Your task to perform on an android device: turn off priority inbox in the gmail app Image 0: 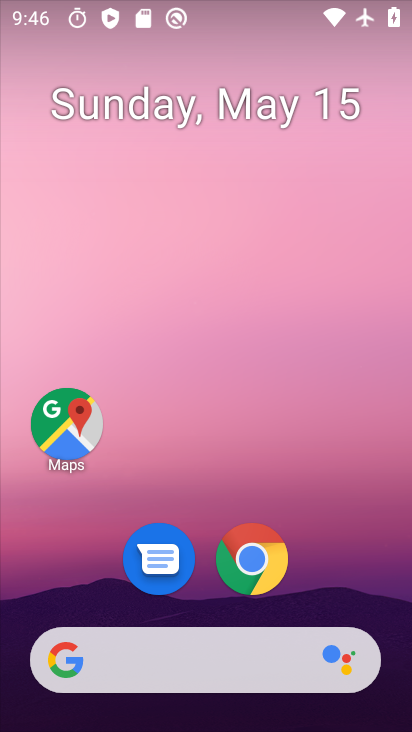
Step 0: drag from (289, 613) to (169, 0)
Your task to perform on an android device: turn off priority inbox in the gmail app Image 1: 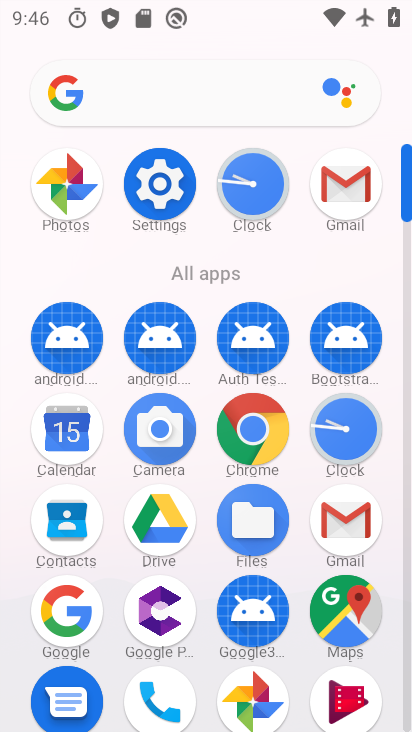
Step 1: click (366, 521)
Your task to perform on an android device: turn off priority inbox in the gmail app Image 2: 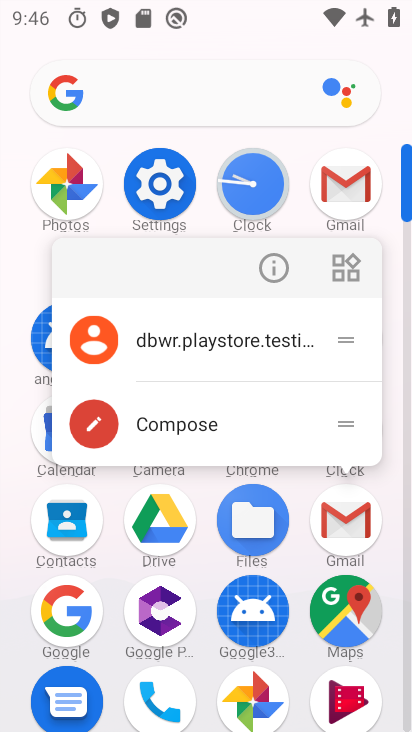
Step 2: click (337, 517)
Your task to perform on an android device: turn off priority inbox in the gmail app Image 3: 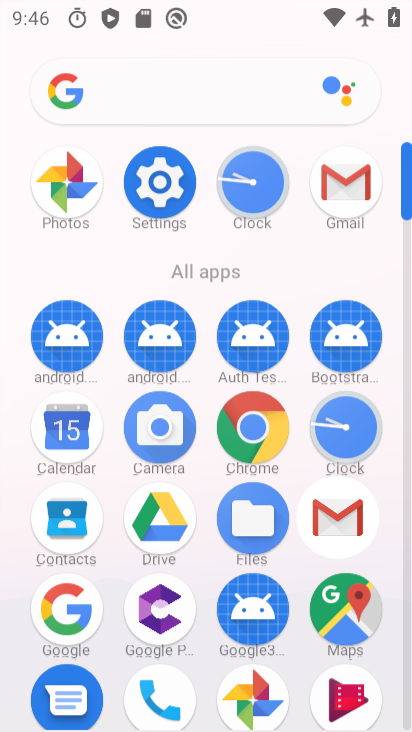
Step 3: click (342, 509)
Your task to perform on an android device: turn off priority inbox in the gmail app Image 4: 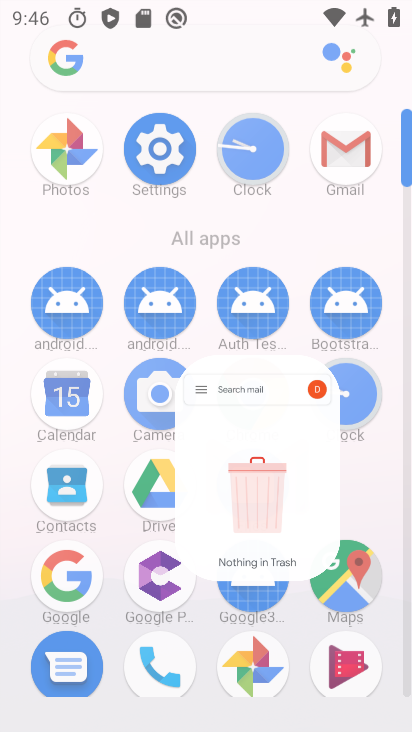
Step 4: click (344, 508)
Your task to perform on an android device: turn off priority inbox in the gmail app Image 5: 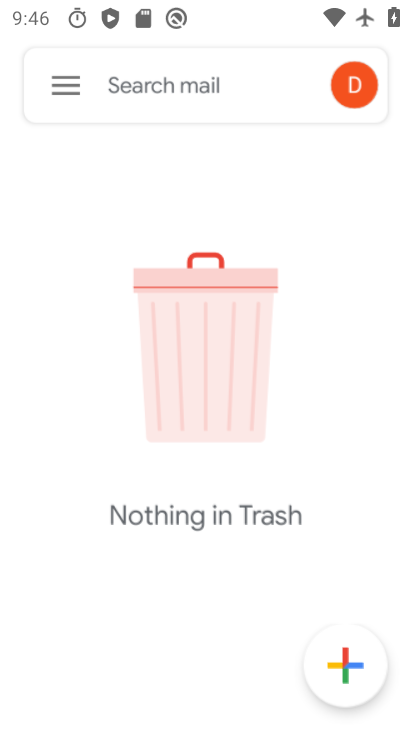
Step 5: click (345, 510)
Your task to perform on an android device: turn off priority inbox in the gmail app Image 6: 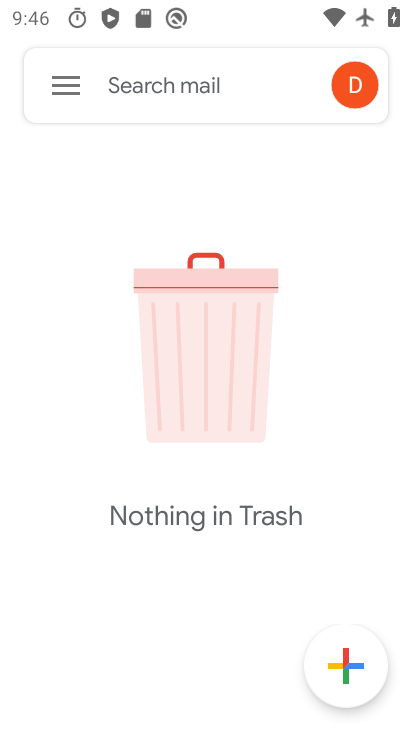
Step 6: click (70, 77)
Your task to perform on an android device: turn off priority inbox in the gmail app Image 7: 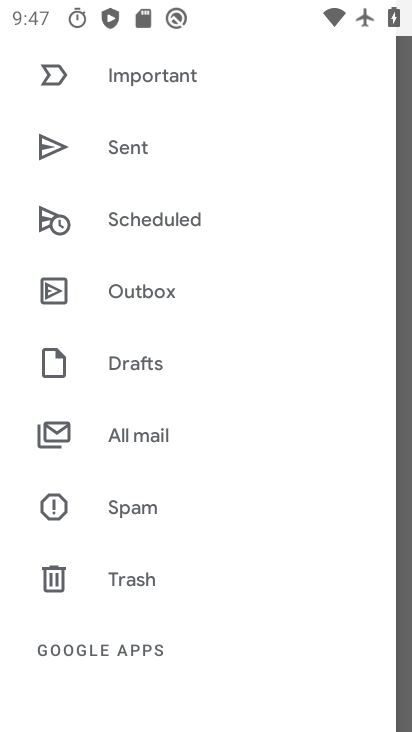
Step 7: drag from (174, 473) to (174, 125)
Your task to perform on an android device: turn off priority inbox in the gmail app Image 8: 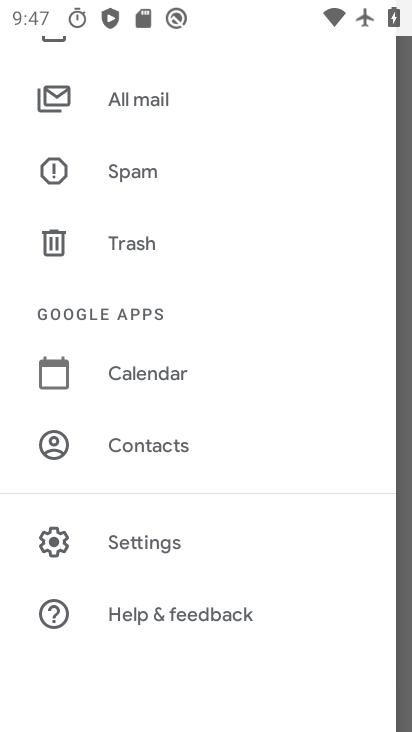
Step 8: click (151, 539)
Your task to perform on an android device: turn off priority inbox in the gmail app Image 9: 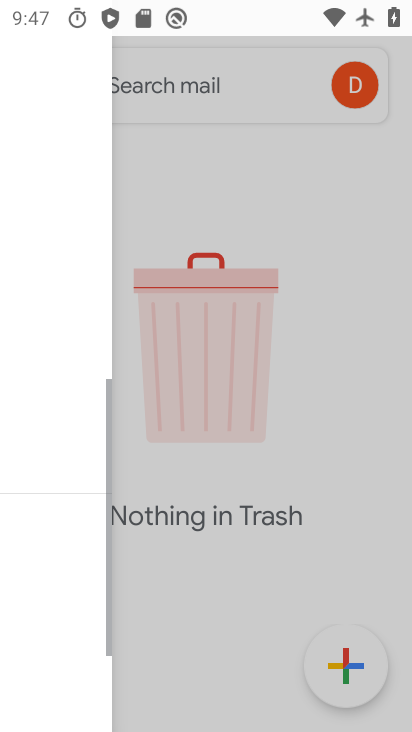
Step 9: click (151, 539)
Your task to perform on an android device: turn off priority inbox in the gmail app Image 10: 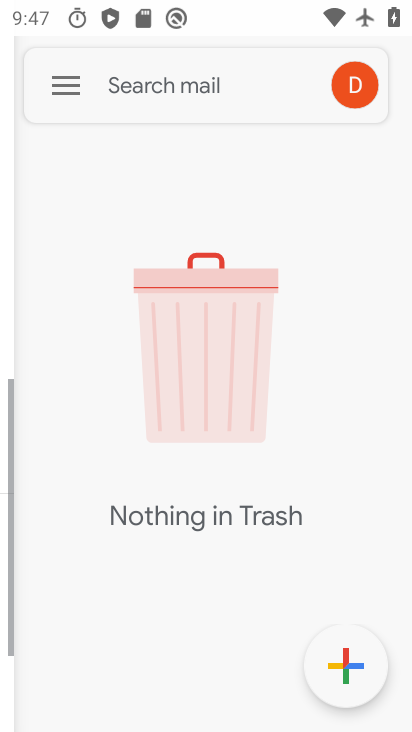
Step 10: click (151, 539)
Your task to perform on an android device: turn off priority inbox in the gmail app Image 11: 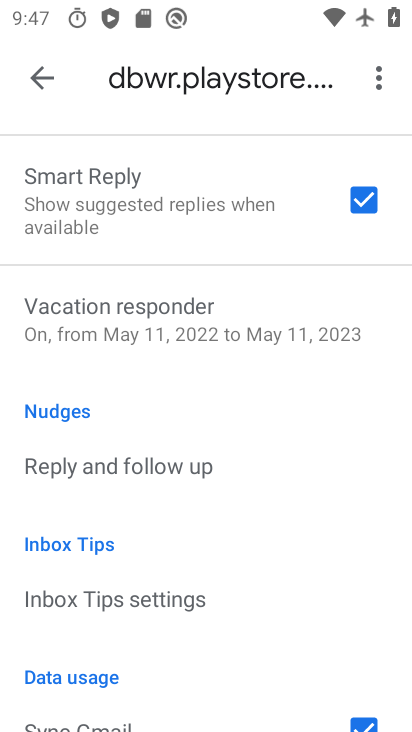
Step 11: click (100, 137)
Your task to perform on an android device: turn off priority inbox in the gmail app Image 12: 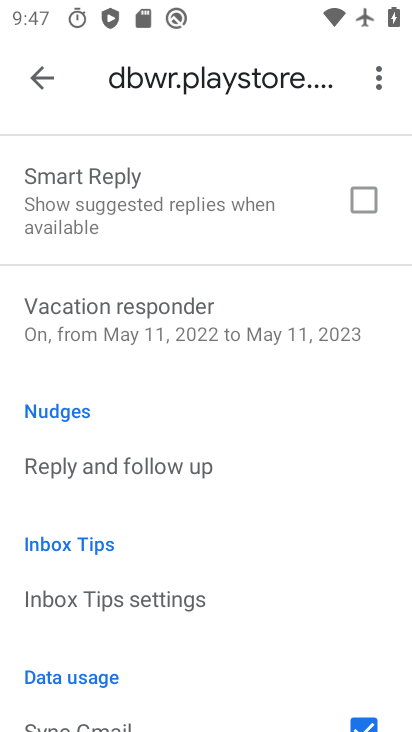
Step 12: drag from (189, 241) to (203, 139)
Your task to perform on an android device: turn off priority inbox in the gmail app Image 13: 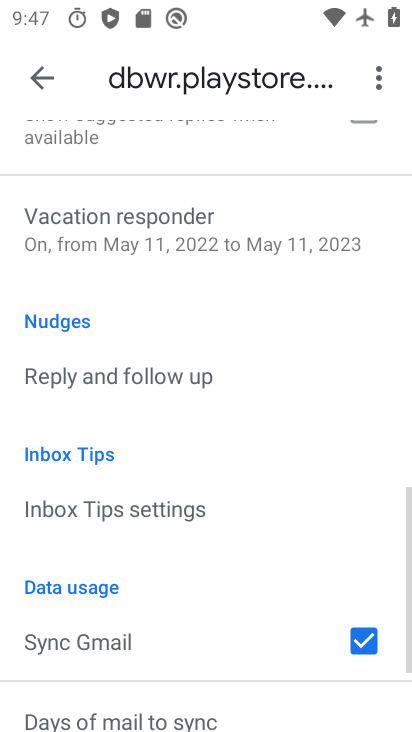
Step 13: drag from (133, 465) to (125, 270)
Your task to perform on an android device: turn off priority inbox in the gmail app Image 14: 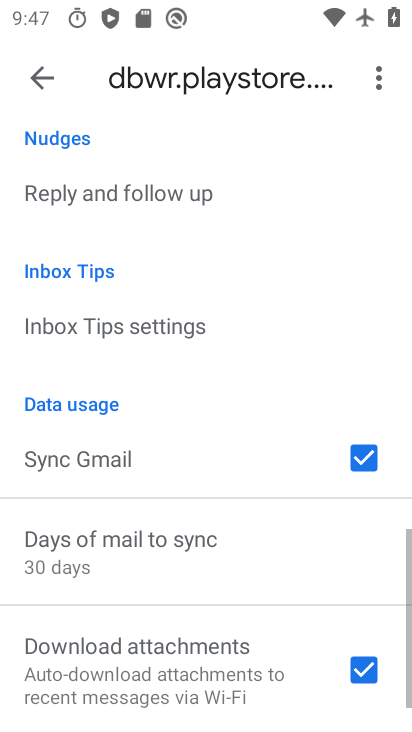
Step 14: drag from (138, 377) to (149, 253)
Your task to perform on an android device: turn off priority inbox in the gmail app Image 15: 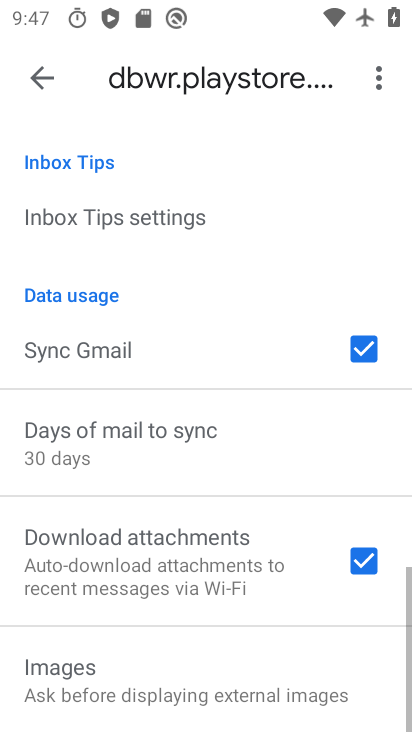
Step 15: drag from (76, 597) to (130, 285)
Your task to perform on an android device: turn off priority inbox in the gmail app Image 16: 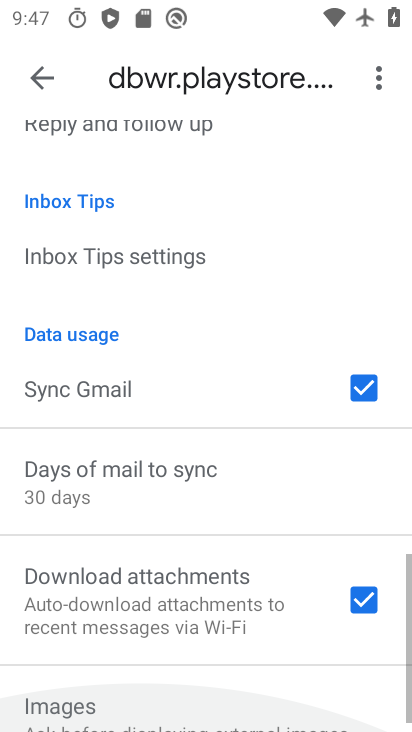
Step 16: drag from (183, 559) to (191, 610)
Your task to perform on an android device: turn off priority inbox in the gmail app Image 17: 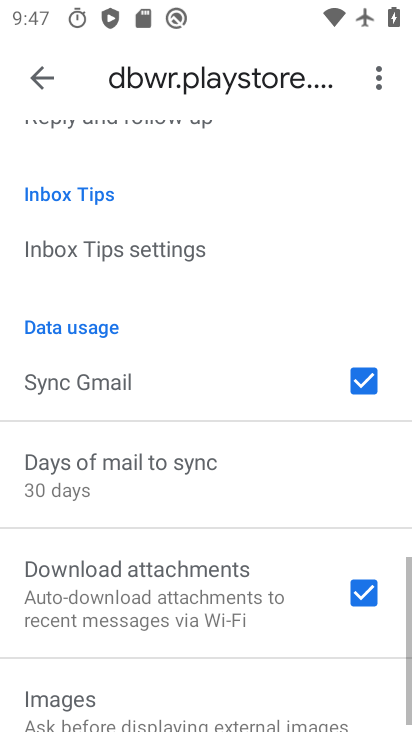
Step 17: drag from (230, 344) to (113, 618)
Your task to perform on an android device: turn off priority inbox in the gmail app Image 18: 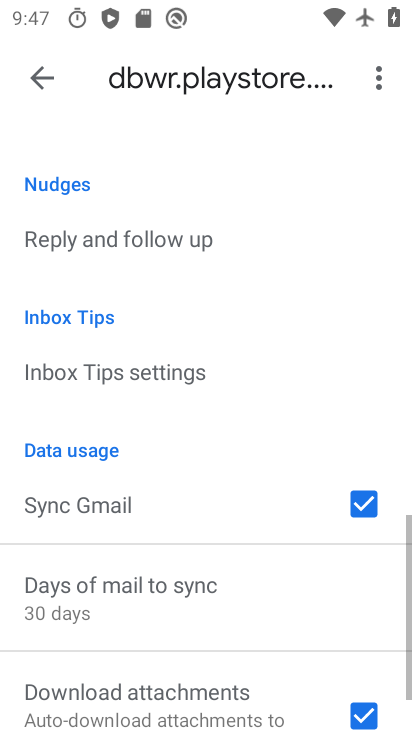
Step 18: drag from (135, 302) to (160, 556)
Your task to perform on an android device: turn off priority inbox in the gmail app Image 19: 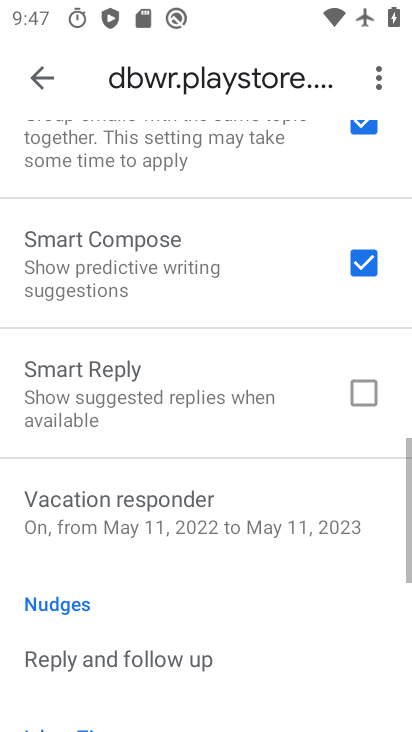
Step 19: click (34, 76)
Your task to perform on an android device: turn off priority inbox in the gmail app Image 20: 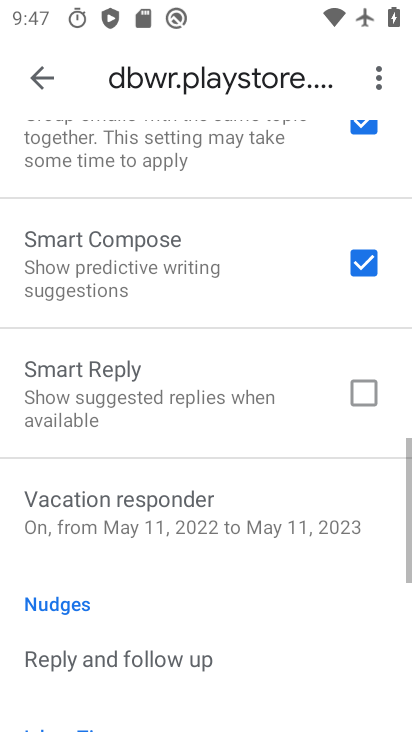
Step 20: drag from (73, 221) to (72, 559)
Your task to perform on an android device: turn off priority inbox in the gmail app Image 21: 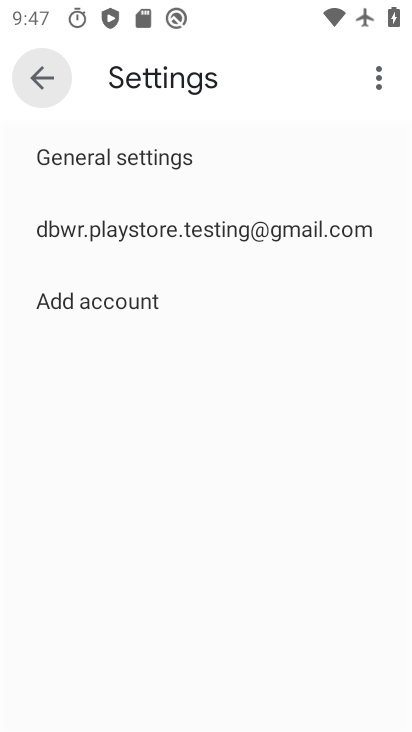
Step 21: drag from (41, 217) to (89, 721)
Your task to perform on an android device: turn off priority inbox in the gmail app Image 22: 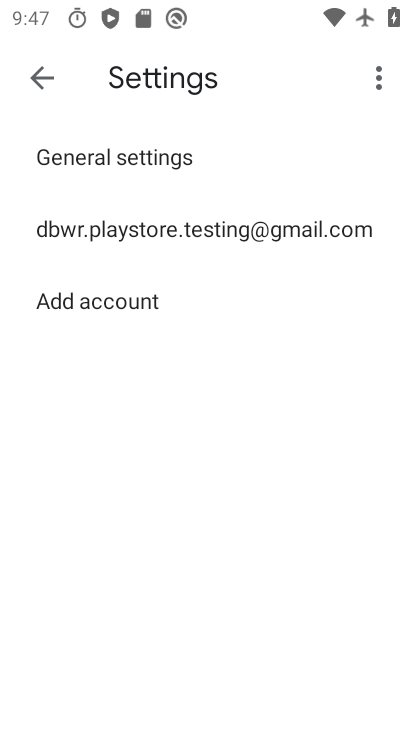
Step 22: click (147, 225)
Your task to perform on an android device: turn off priority inbox in the gmail app Image 23: 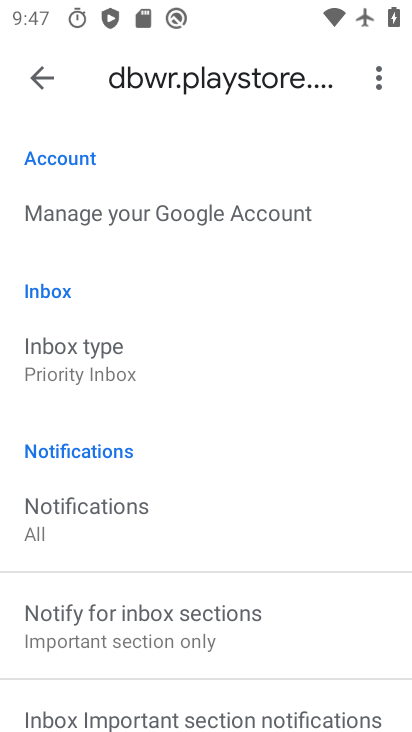
Step 23: click (66, 364)
Your task to perform on an android device: turn off priority inbox in the gmail app Image 24: 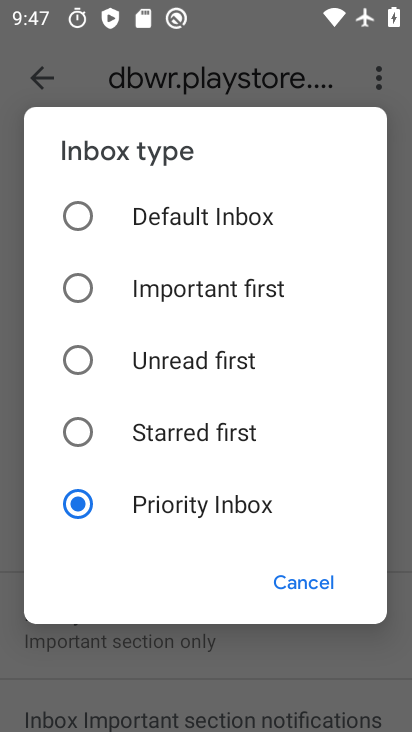
Step 24: click (77, 420)
Your task to perform on an android device: turn off priority inbox in the gmail app Image 25: 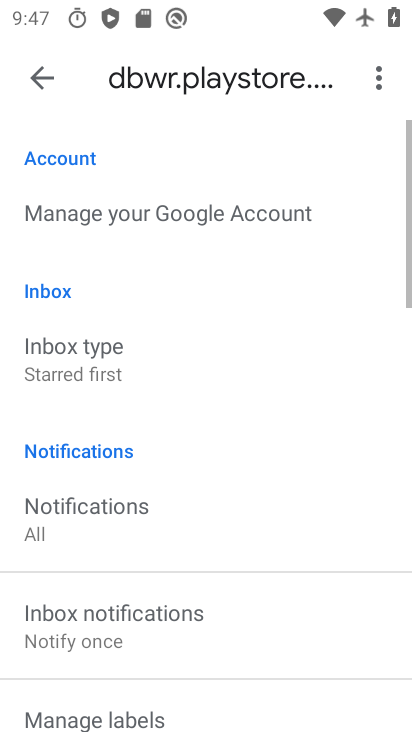
Step 25: click (75, 426)
Your task to perform on an android device: turn off priority inbox in the gmail app Image 26: 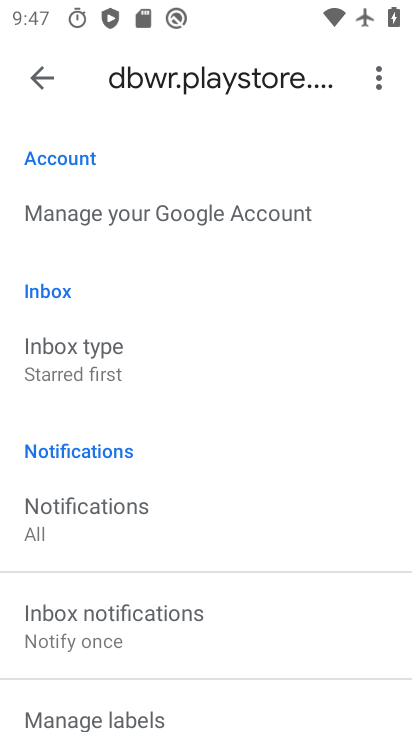
Step 26: click (75, 424)
Your task to perform on an android device: turn off priority inbox in the gmail app Image 27: 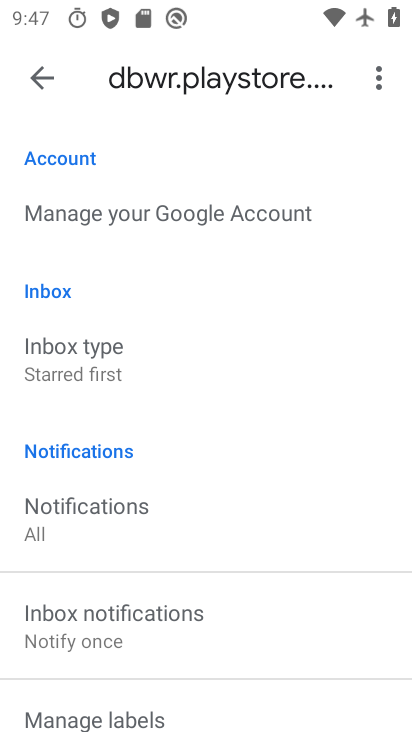
Step 27: click (75, 424)
Your task to perform on an android device: turn off priority inbox in the gmail app Image 28: 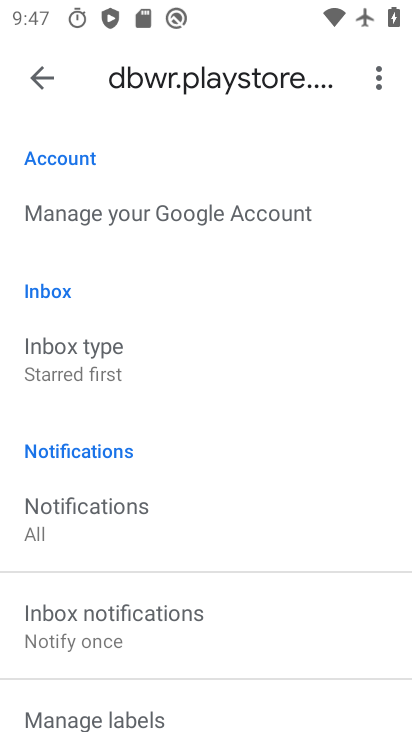
Step 28: click (84, 404)
Your task to perform on an android device: turn off priority inbox in the gmail app Image 29: 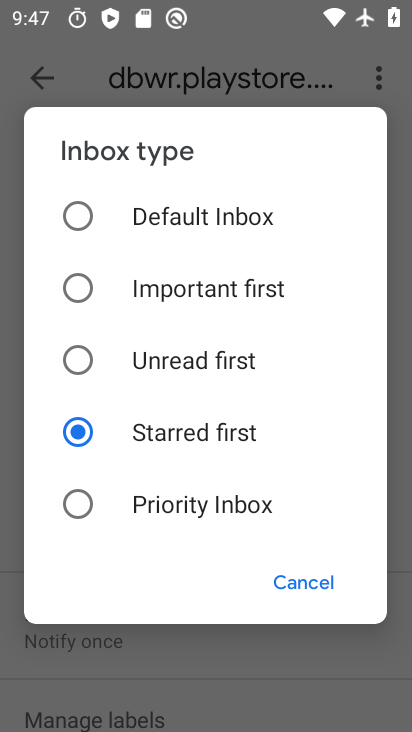
Step 29: click (71, 362)
Your task to perform on an android device: turn off priority inbox in the gmail app Image 30: 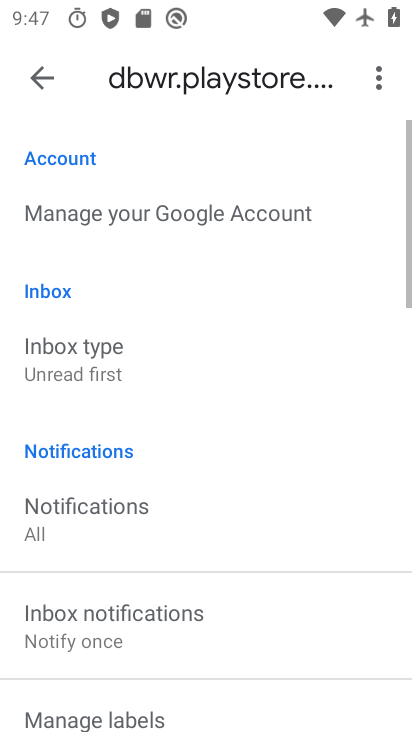
Step 30: click (306, 579)
Your task to perform on an android device: turn off priority inbox in the gmail app Image 31: 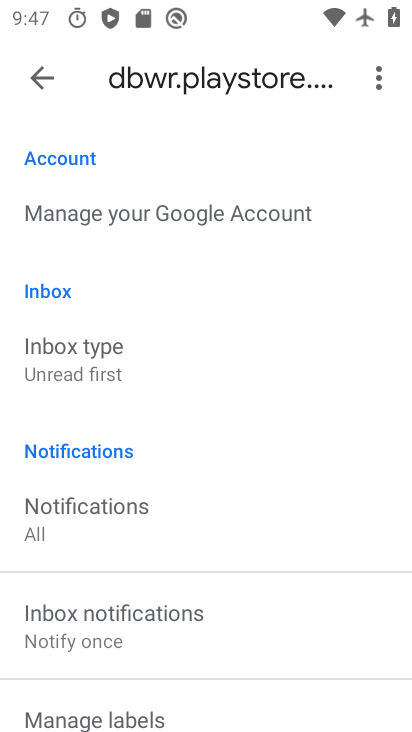
Step 31: task complete